Your task to perform on an android device: turn on translation in the chrome app Image 0: 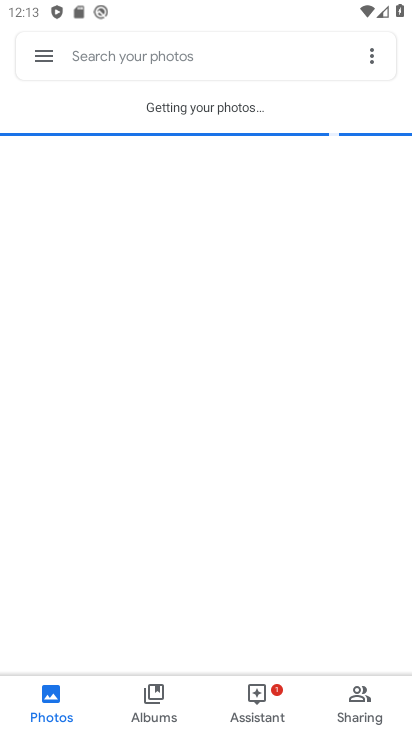
Step 0: press back button
Your task to perform on an android device: turn on translation in the chrome app Image 1: 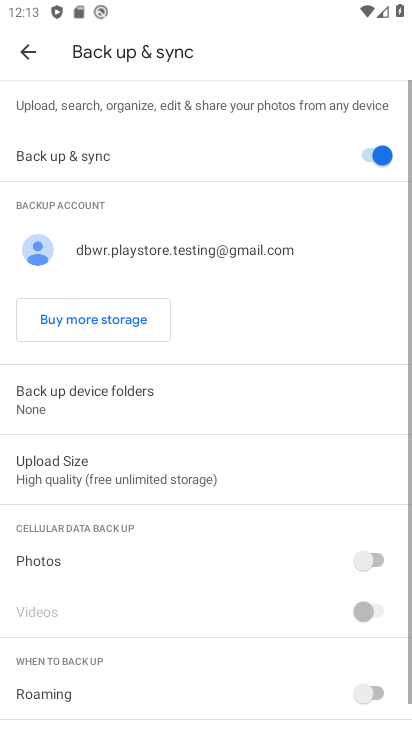
Step 1: press back button
Your task to perform on an android device: turn on translation in the chrome app Image 2: 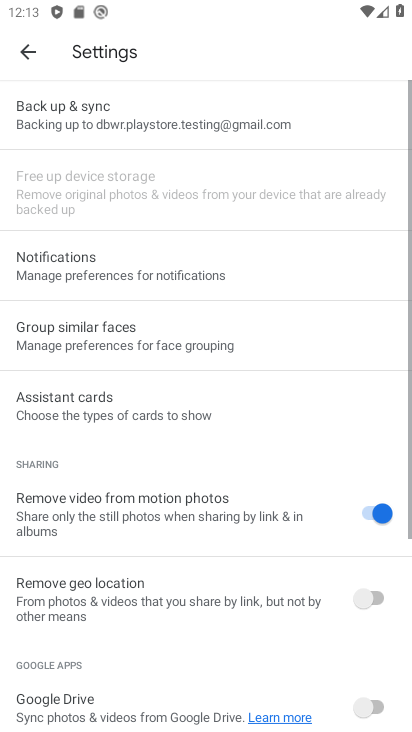
Step 2: press back button
Your task to perform on an android device: turn on translation in the chrome app Image 3: 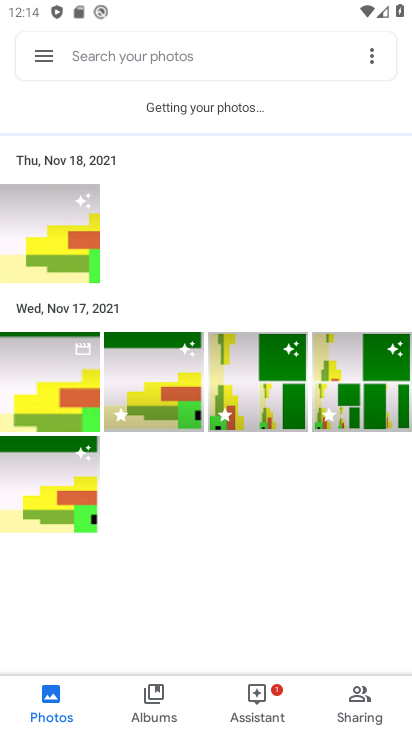
Step 3: press back button
Your task to perform on an android device: turn on translation in the chrome app Image 4: 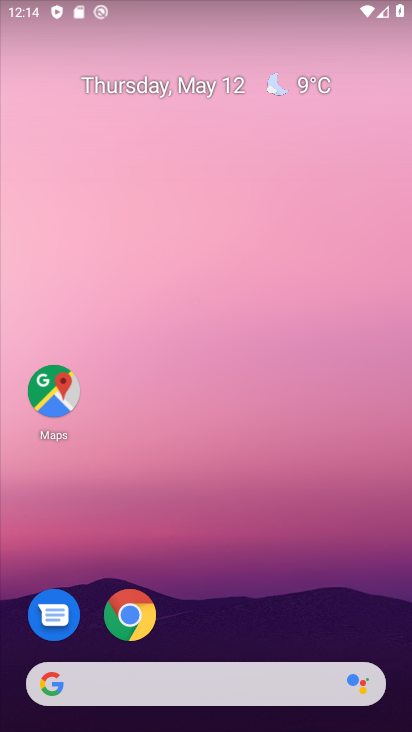
Step 4: click (130, 614)
Your task to perform on an android device: turn on translation in the chrome app Image 5: 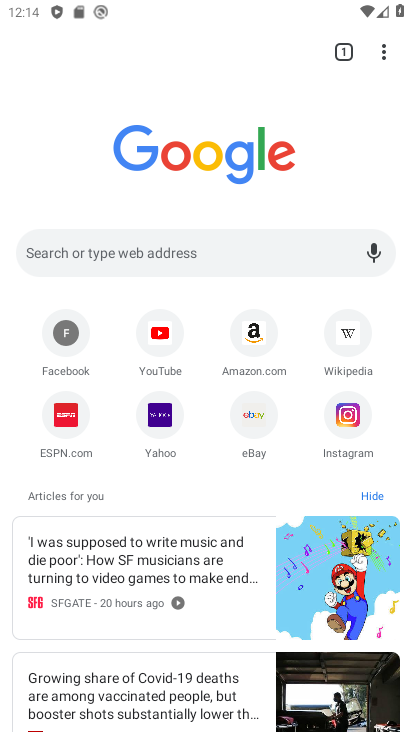
Step 5: click (384, 53)
Your task to perform on an android device: turn on translation in the chrome app Image 6: 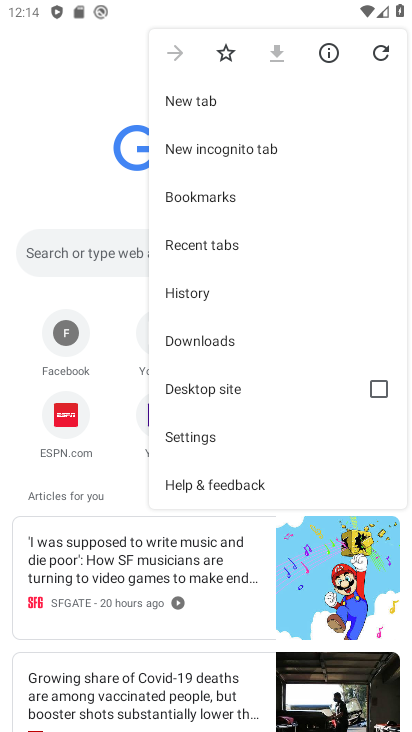
Step 6: click (192, 437)
Your task to perform on an android device: turn on translation in the chrome app Image 7: 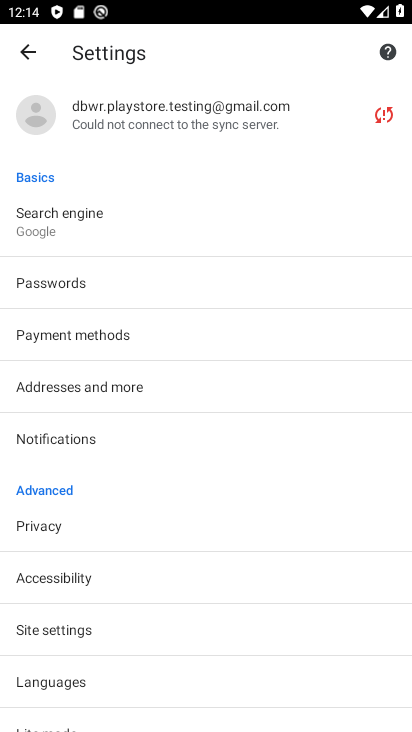
Step 7: click (68, 681)
Your task to perform on an android device: turn on translation in the chrome app Image 8: 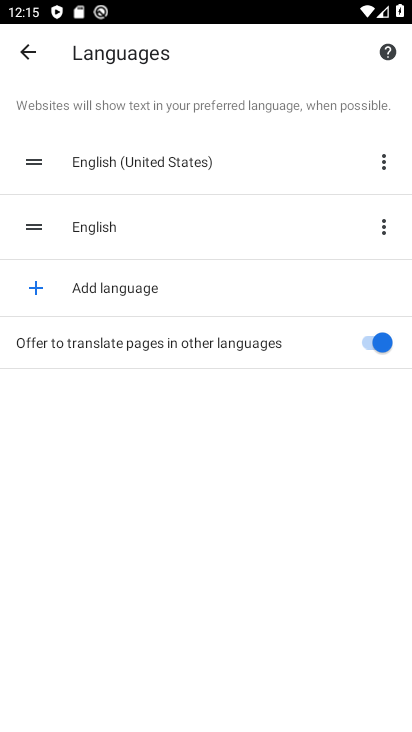
Step 8: task complete